Your task to perform on an android device: delete location history Image 0: 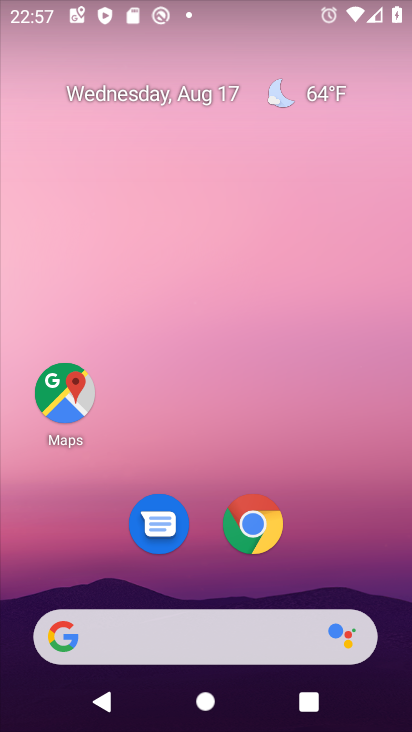
Step 0: drag from (311, 488) to (296, 2)
Your task to perform on an android device: delete location history Image 1: 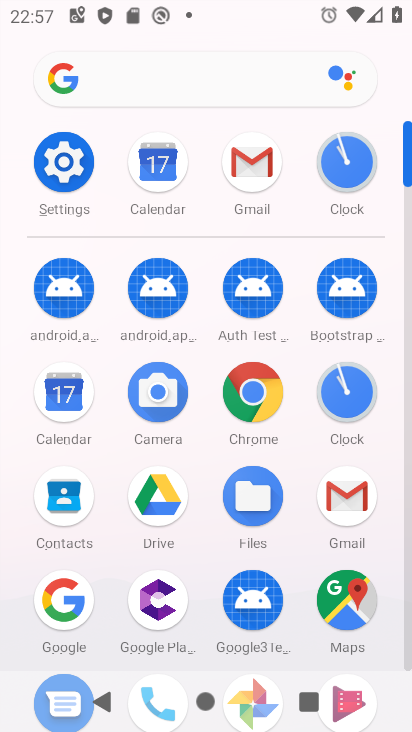
Step 1: click (348, 599)
Your task to perform on an android device: delete location history Image 2: 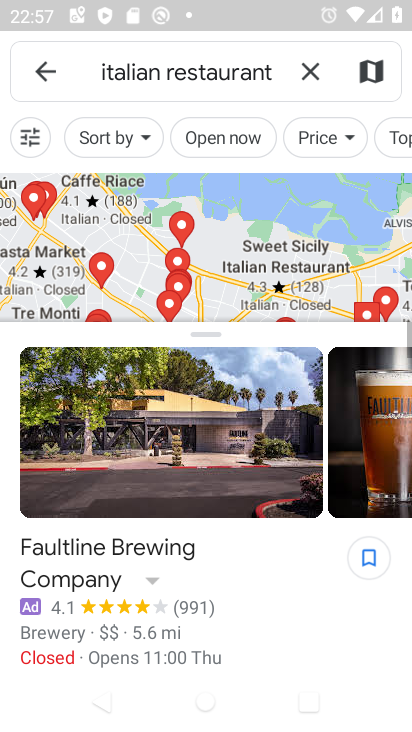
Step 2: click (52, 65)
Your task to perform on an android device: delete location history Image 3: 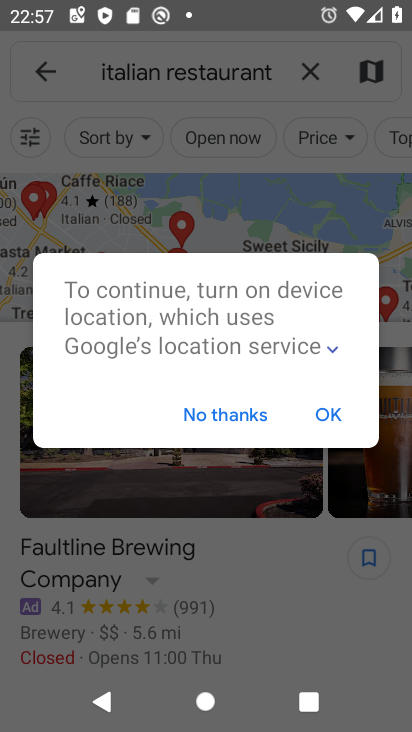
Step 3: click (336, 418)
Your task to perform on an android device: delete location history Image 4: 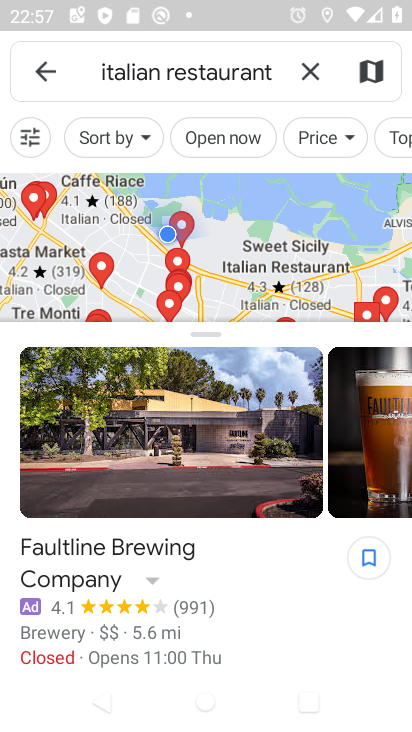
Step 4: click (49, 66)
Your task to perform on an android device: delete location history Image 5: 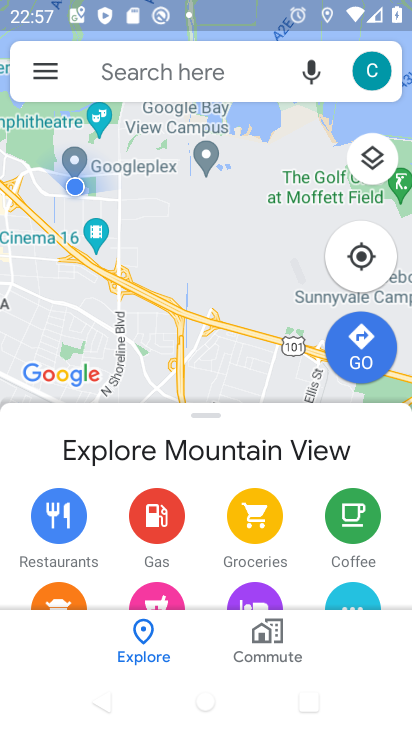
Step 5: click (49, 66)
Your task to perform on an android device: delete location history Image 6: 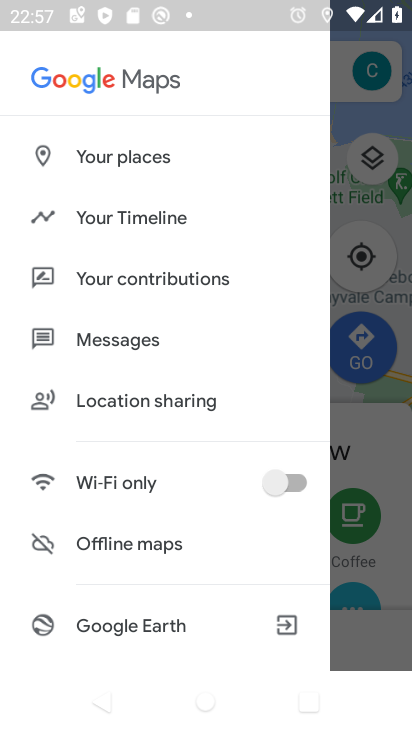
Step 6: click (126, 215)
Your task to perform on an android device: delete location history Image 7: 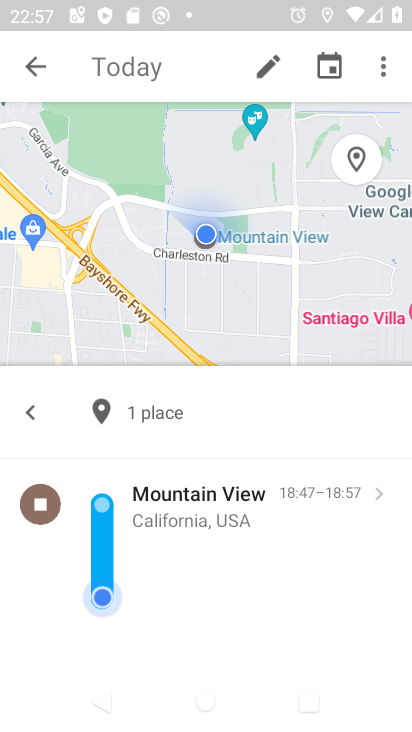
Step 7: click (384, 70)
Your task to perform on an android device: delete location history Image 8: 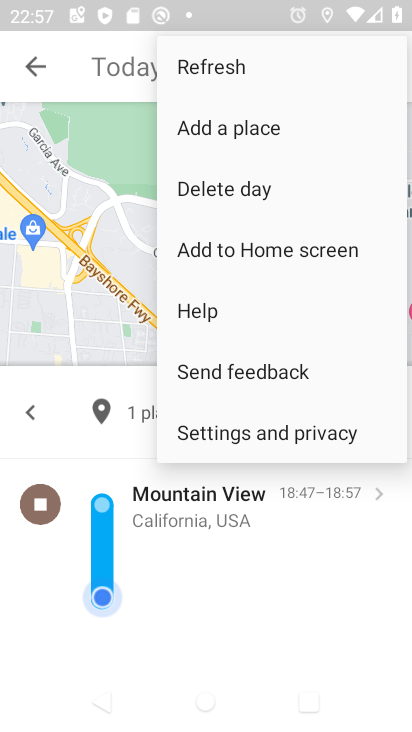
Step 8: click (309, 421)
Your task to perform on an android device: delete location history Image 9: 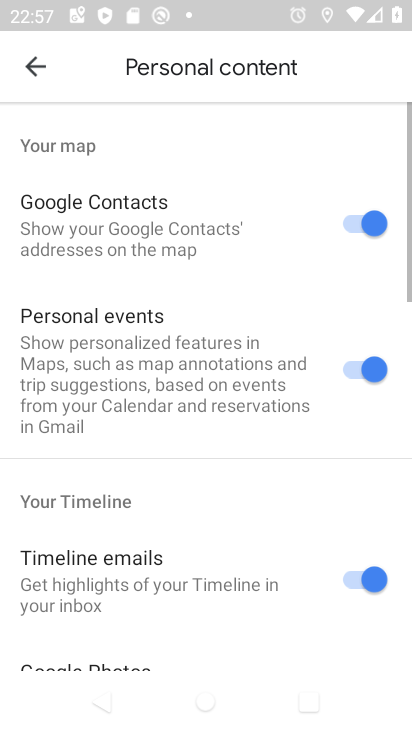
Step 9: drag from (276, 487) to (294, 7)
Your task to perform on an android device: delete location history Image 10: 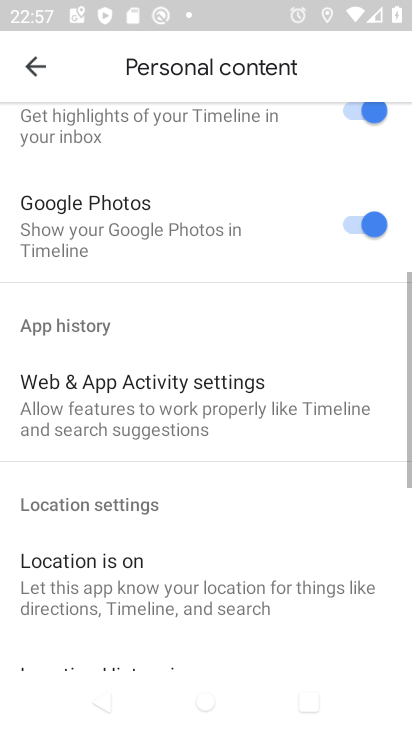
Step 10: drag from (157, 508) to (199, 1)
Your task to perform on an android device: delete location history Image 11: 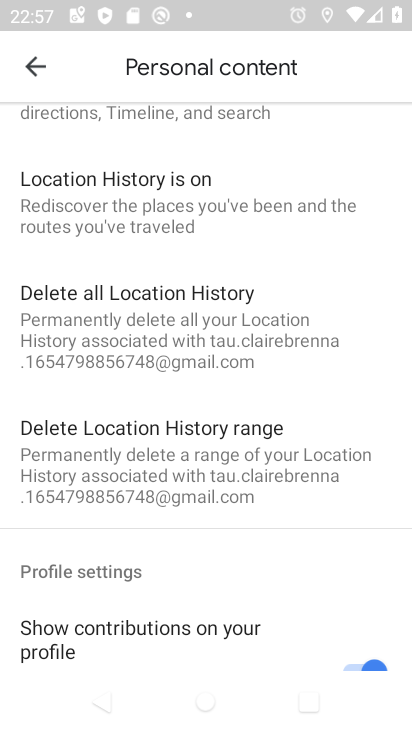
Step 11: click (150, 309)
Your task to perform on an android device: delete location history Image 12: 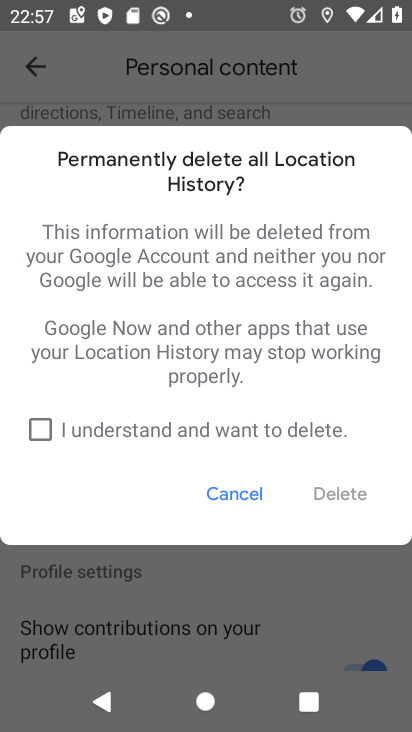
Step 12: click (43, 430)
Your task to perform on an android device: delete location history Image 13: 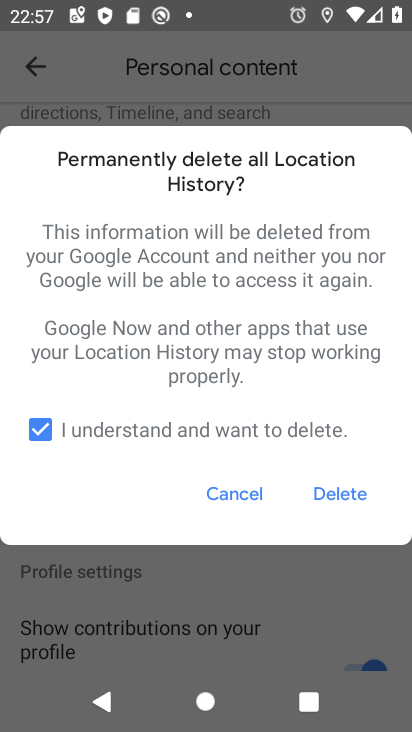
Step 13: click (333, 499)
Your task to perform on an android device: delete location history Image 14: 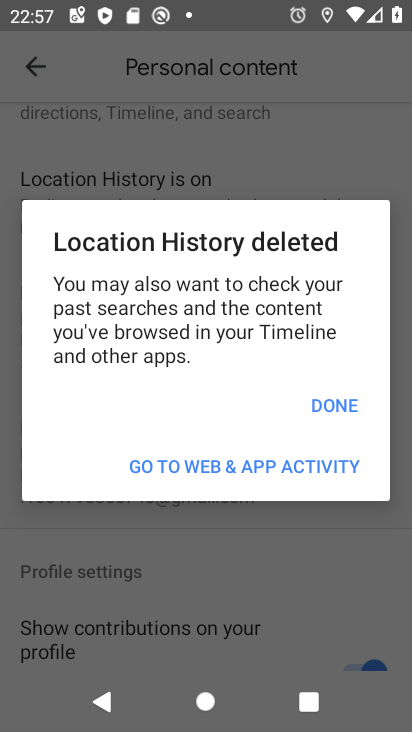
Step 14: click (355, 409)
Your task to perform on an android device: delete location history Image 15: 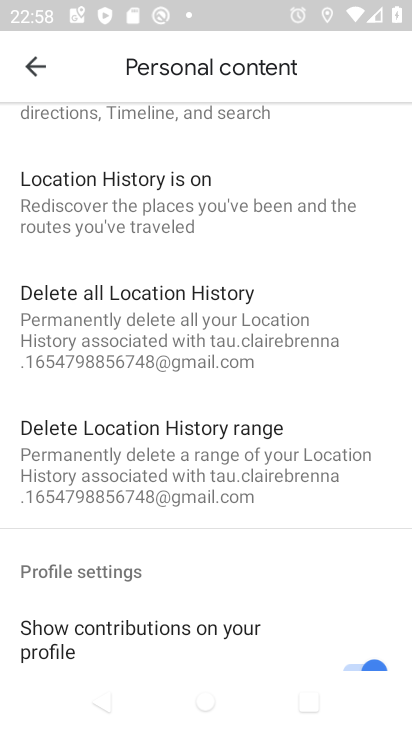
Step 15: task complete